Your task to perform on an android device: Go to battery settings Image 0: 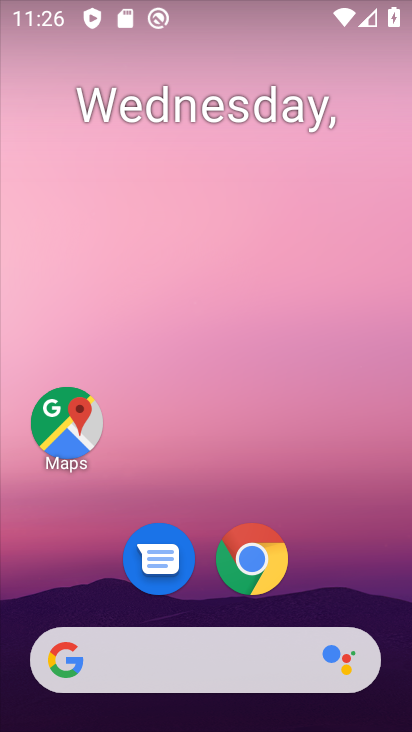
Step 0: drag from (363, 552) to (329, 31)
Your task to perform on an android device: Go to battery settings Image 1: 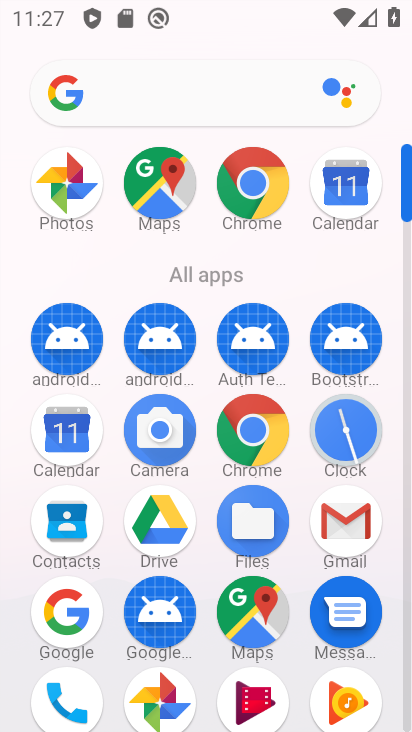
Step 1: drag from (392, 529) to (335, 113)
Your task to perform on an android device: Go to battery settings Image 2: 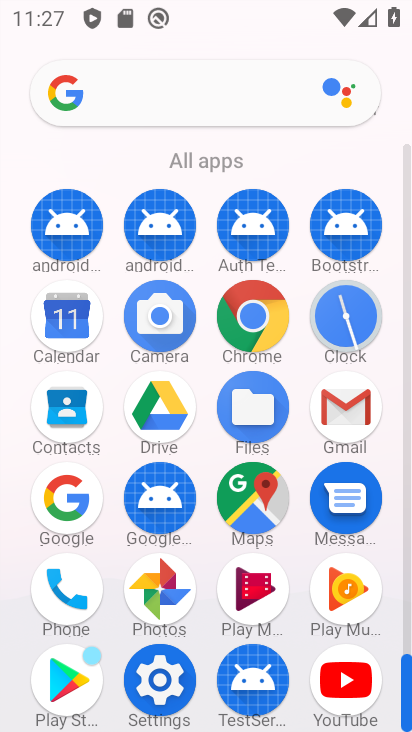
Step 2: click (169, 694)
Your task to perform on an android device: Go to battery settings Image 3: 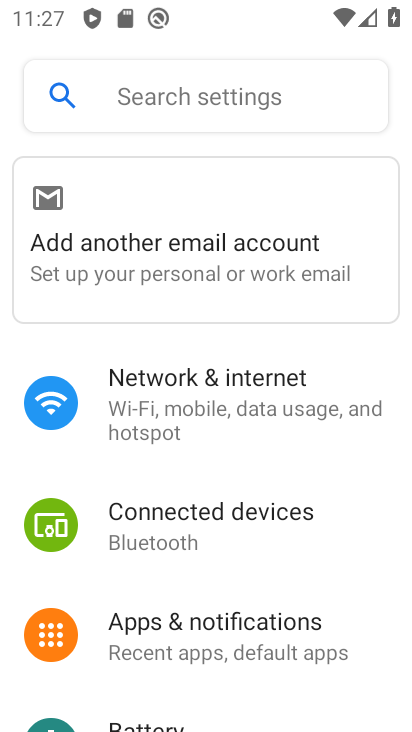
Step 3: drag from (230, 609) to (279, 270)
Your task to perform on an android device: Go to battery settings Image 4: 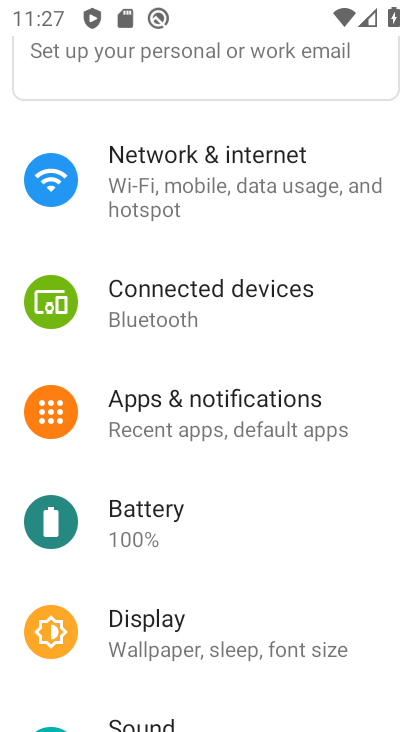
Step 4: click (172, 503)
Your task to perform on an android device: Go to battery settings Image 5: 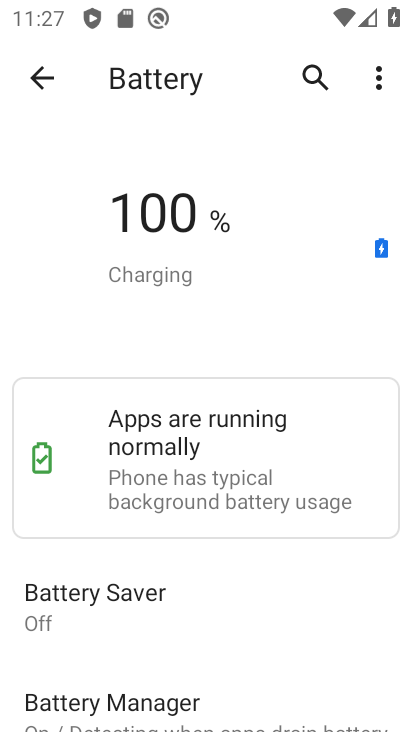
Step 5: task complete